Your task to perform on an android device: Check the news Image 0: 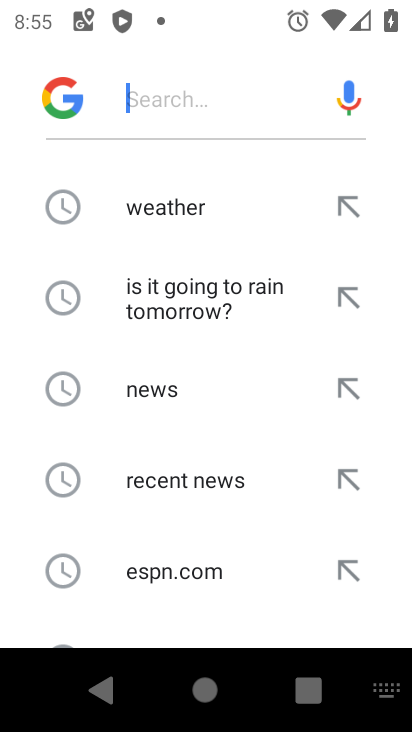
Step 0: click (141, 393)
Your task to perform on an android device: Check the news Image 1: 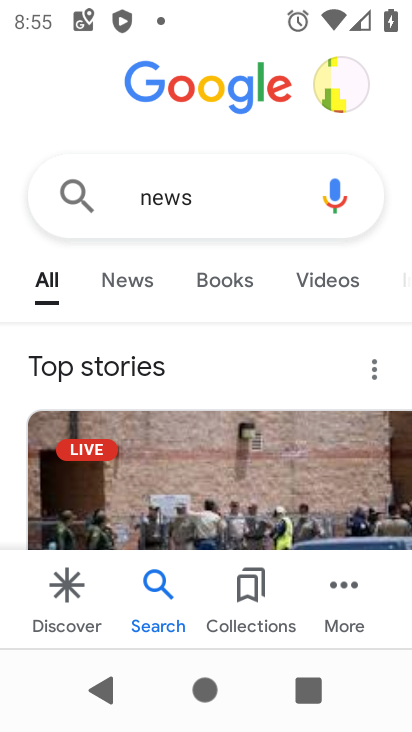
Step 1: drag from (181, 476) to (189, 319)
Your task to perform on an android device: Check the news Image 2: 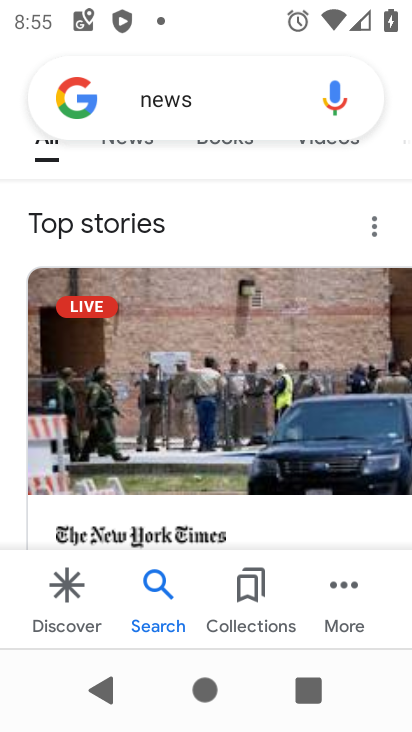
Step 2: click (121, 143)
Your task to perform on an android device: Check the news Image 3: 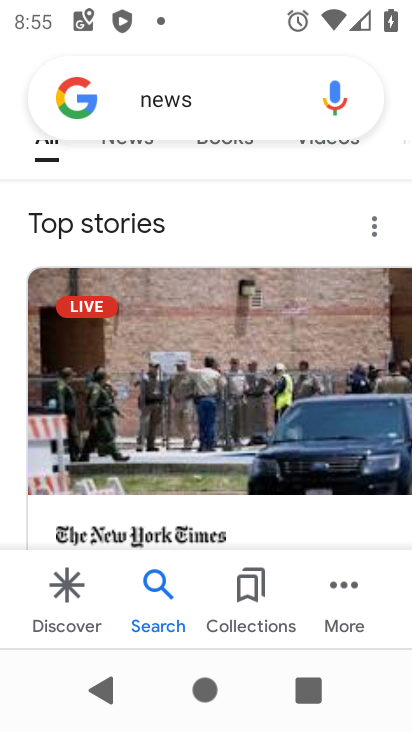
Step 3: drag from (217, 335) to (217, 462)
Your task to perform on an android device: Check the news Image 4: 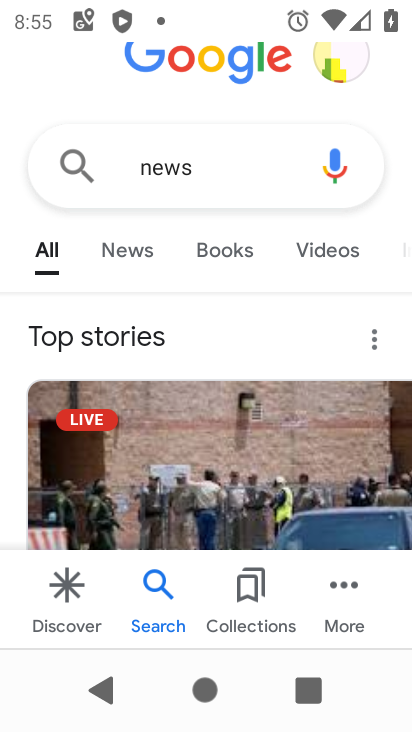
Step 4: click (121, 263)
Your task to perform on an android device: Check the news Image 5: 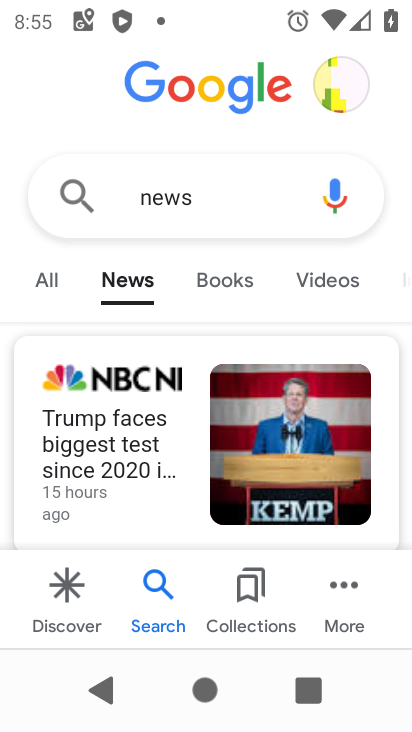
Step 5: task complete